Your task to perform on an android device: allow cookies in the chrome app Image 0: 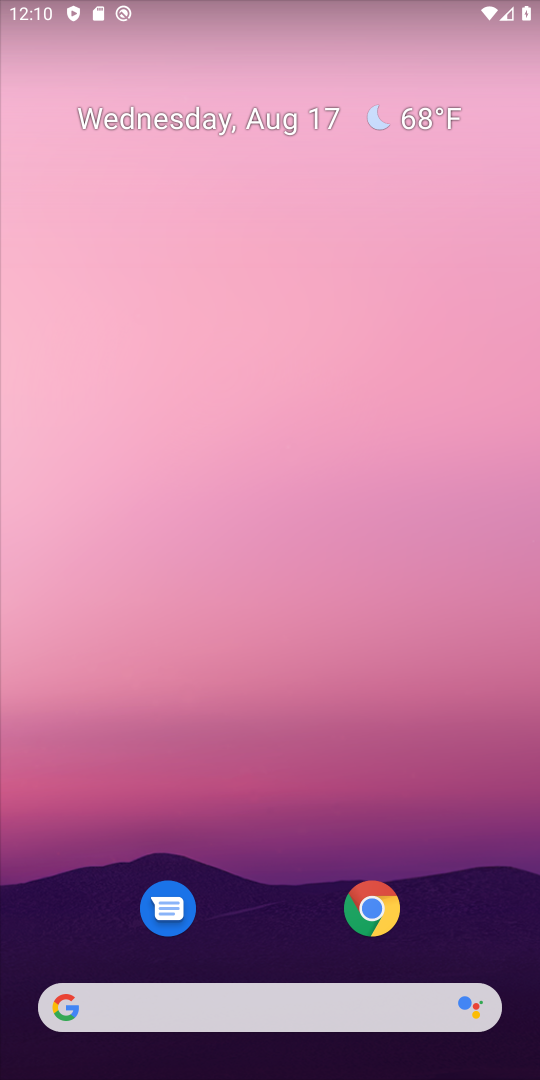
Step 0: click (356, 907)
Your task to perform on an android device: allow cookies in the chrome app Image 1: 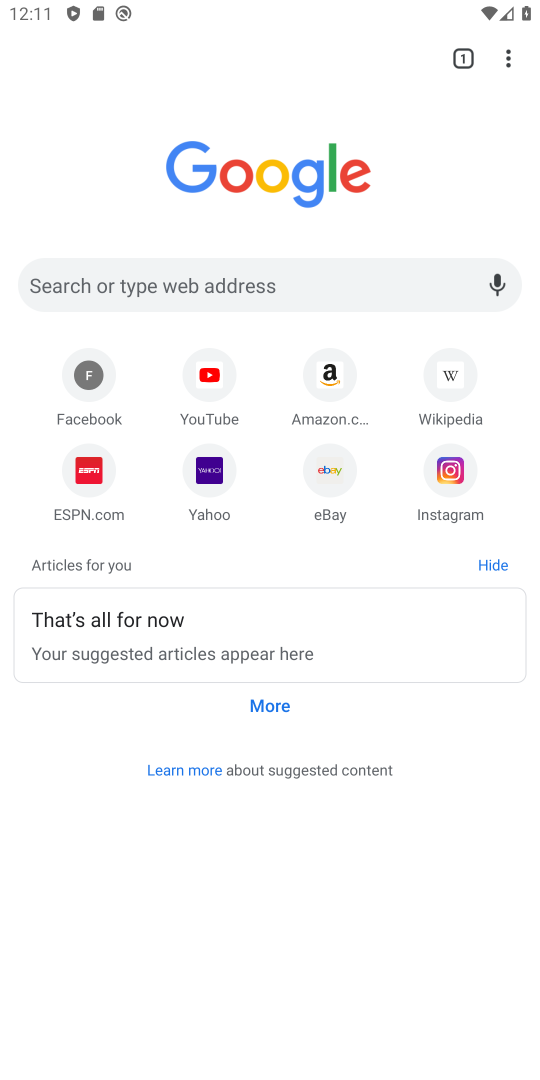
Step 1: click (498, 56)
Your task to perform on an android device: allow cookies in the chrome app Image 2: 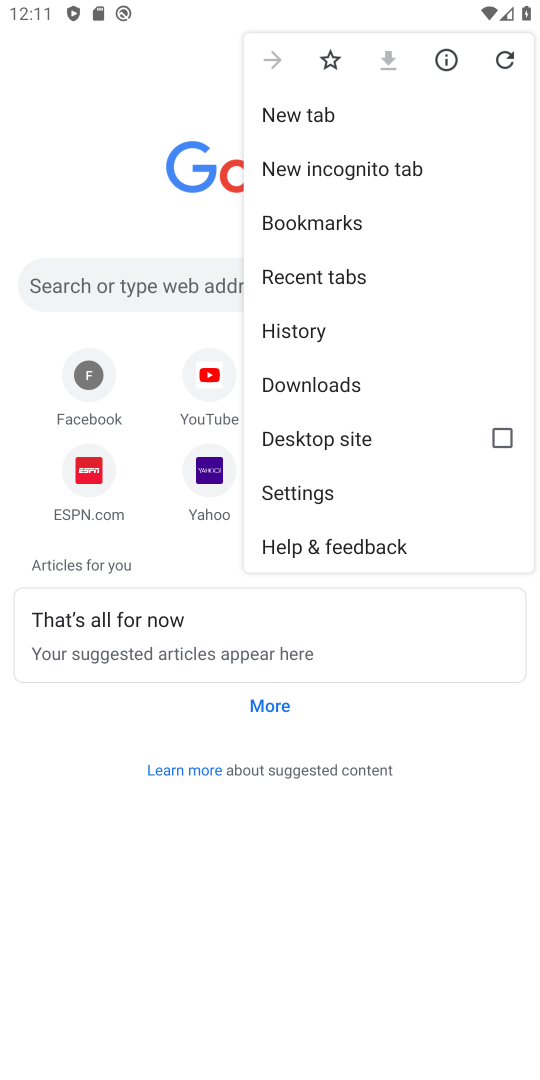
Step 2: click (300, 480)
Your task to perform on an android device: allow cookies in the chrome app Image 3: 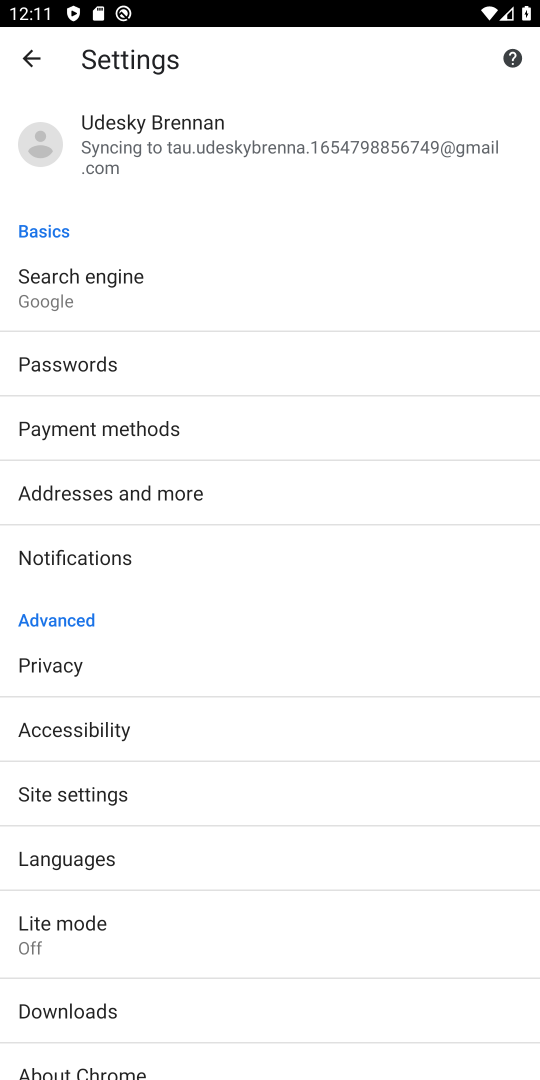
Step 3: click (151, 790)
Your task to perform on an android device: allow cookies in the chrome app Image 4: 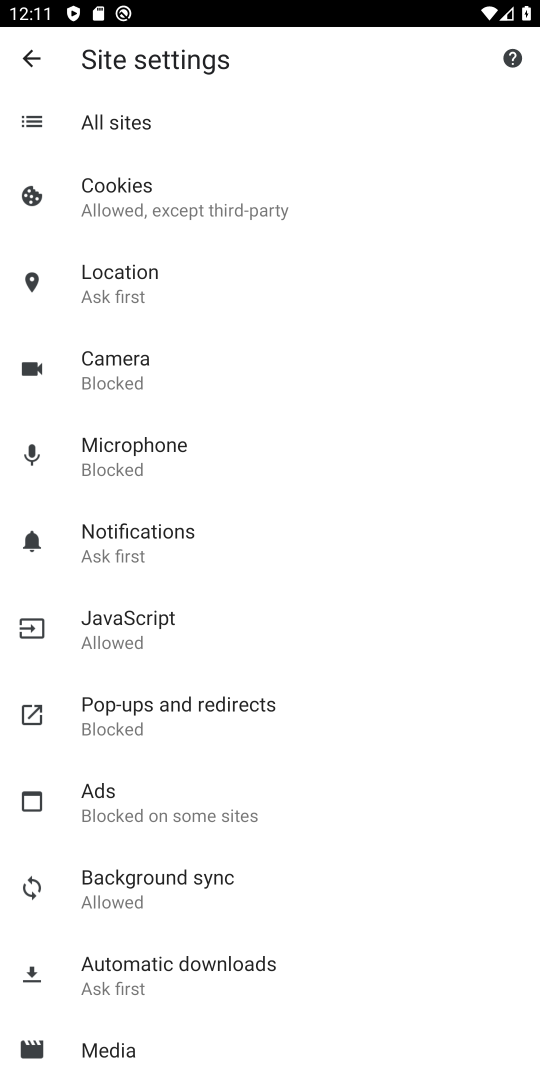
Step 4: click (131, 201)
Your task to perform on an android device: allow cookies in the chrome app Image 5: 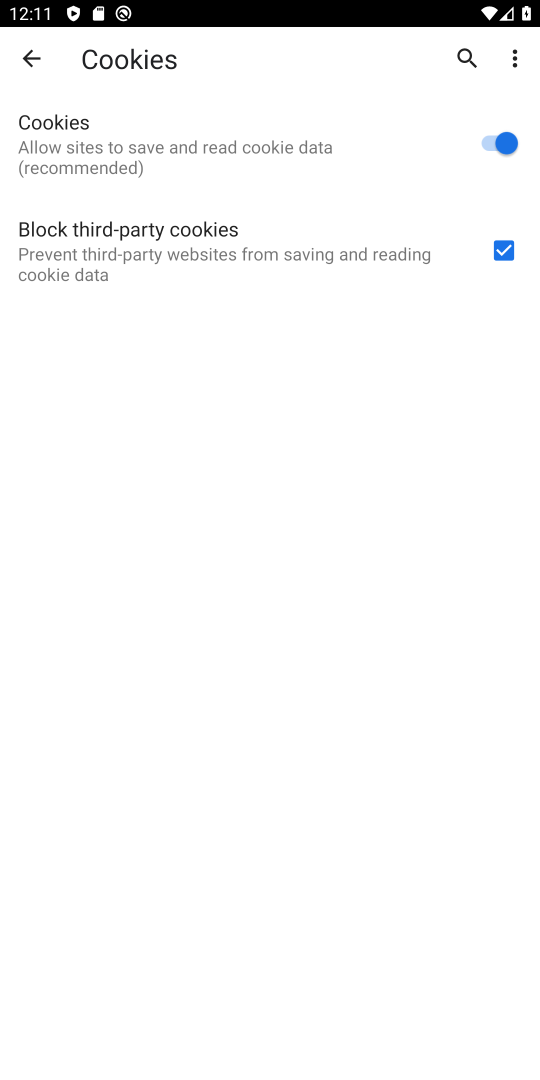
Step 5: task complete